Your task to perform on an android device: Open Google Maps and go to "Timeline" Image 0: 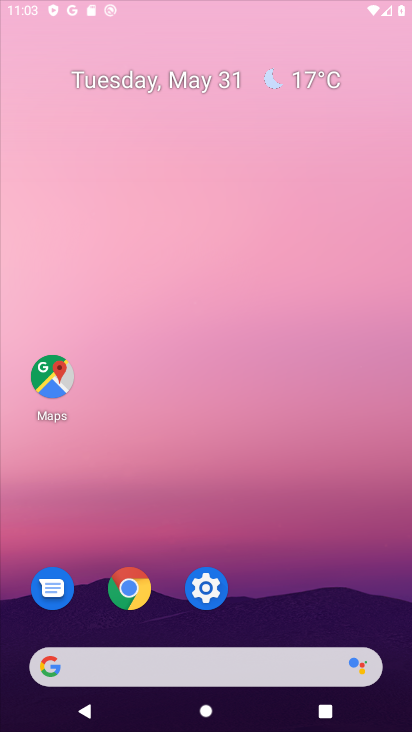
Step 0: press home button
Your task to perform on an android device: Open Google Maps and go to "Timeline" Image 1: 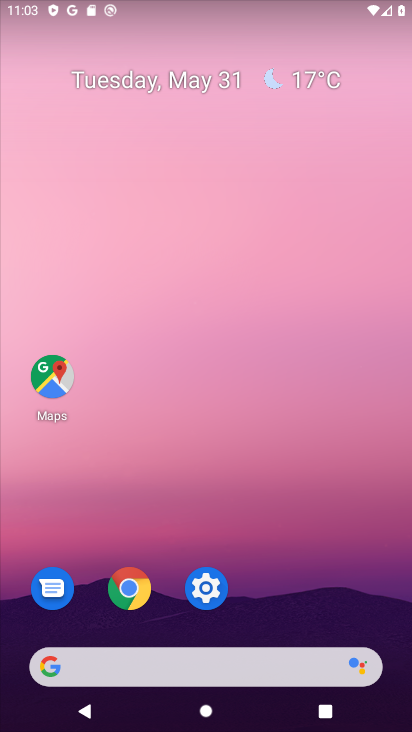
Step 1: drag from (256, 690) to (258, 376)
Your task to perform on an android device: Open Google Maps and go to "Timeline" Image 2: 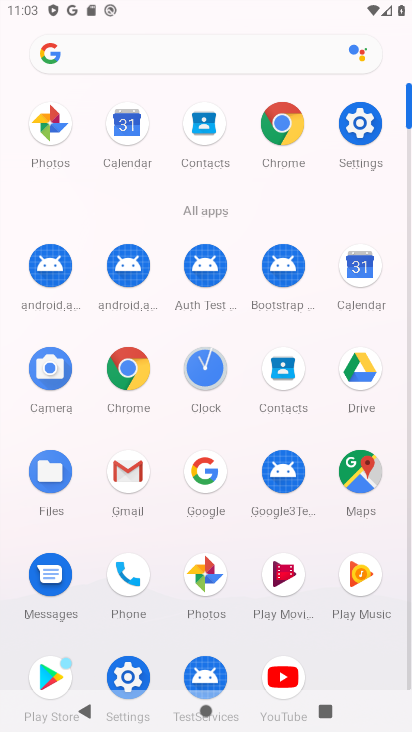
Step 2: click (360, 481)
Your task to perform on an android device: Open Google Maps and go to "Timeline" Image 3: 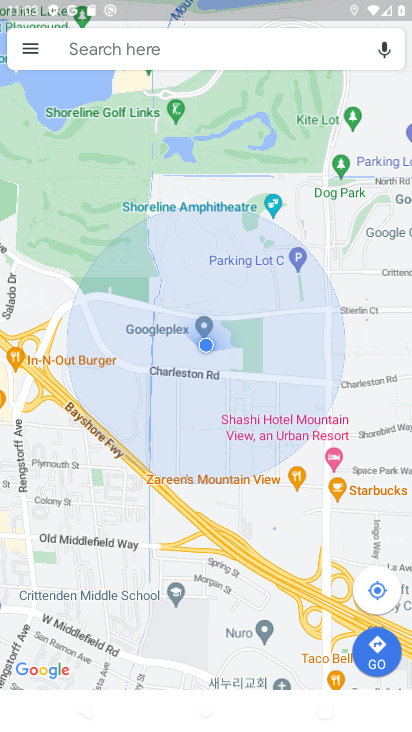
Step 3: click (26, 45)
Your task to perform on an android device: Open Google Maps and go to "Timeline" Image 4: 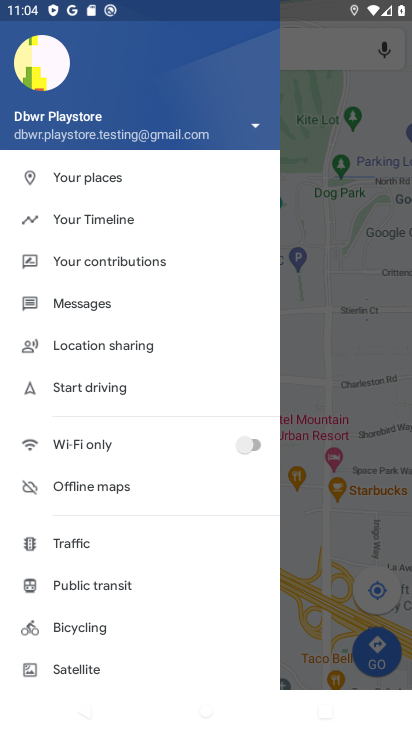
Step 4: click (97, 212)
Your task to perform on an android device: Open Google Maps and go to "Timeline" Image 5: 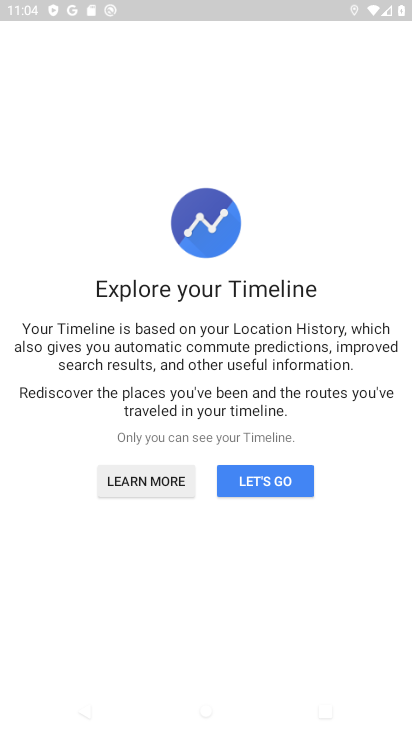
Step 5: click (251, 482)
Your task to perform on an android device: Open Google Maps and go to "Timeline" Image 6: 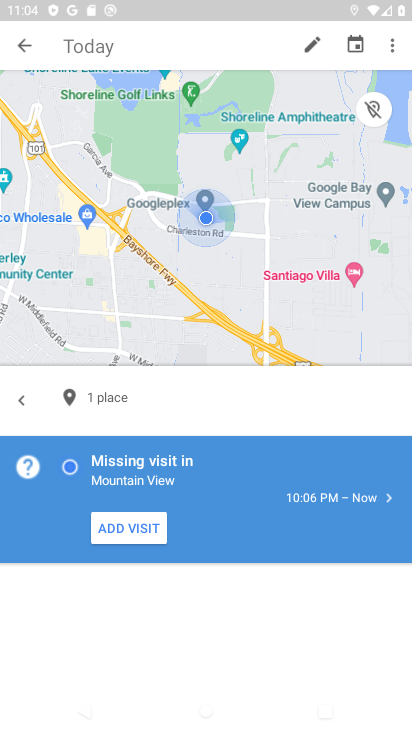
Step 6: task complete